Your task to perform on an android device: Show me productivity apps on the Play Store Image 0: 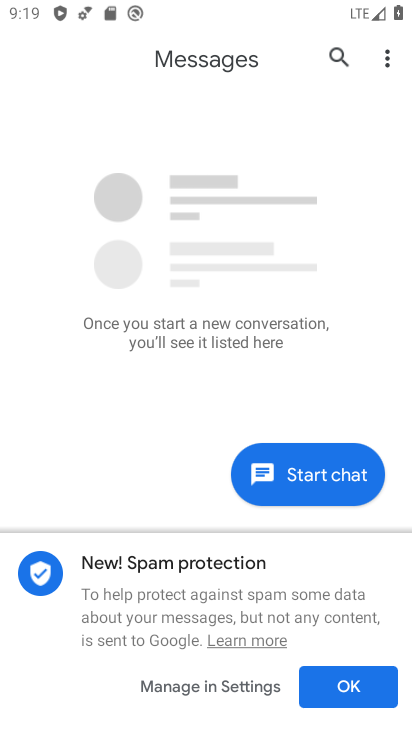
Step 0: press home button
Your task to perform on an android device: Show me productivity apps on the Play Store Image 1: 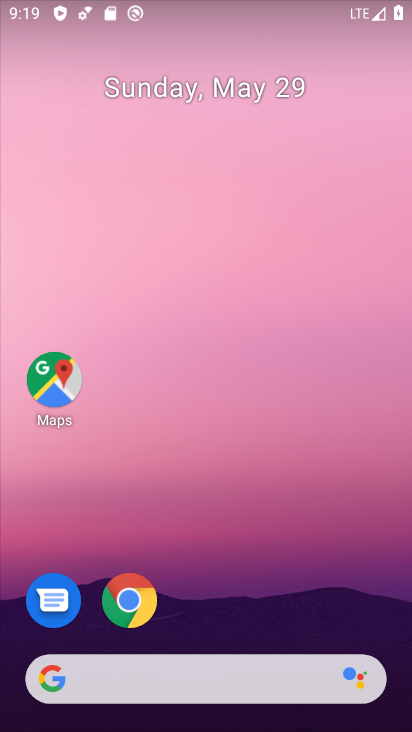
Step 1: drag from (259, 633) to (311, 37)
Your task to perform on an android device: Show me productivity apps on the Play Store Image 2: 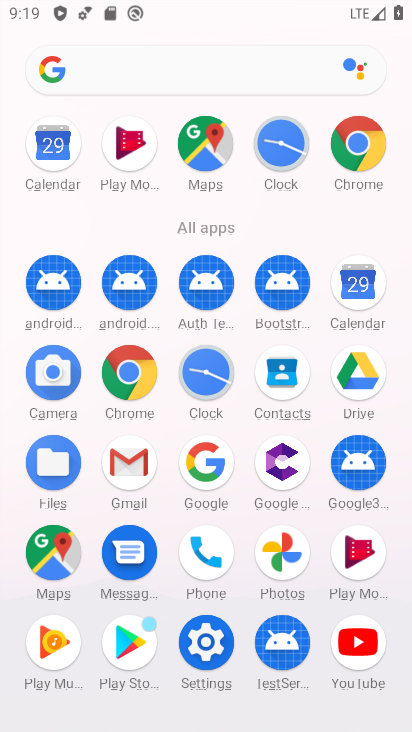
Step 2: click (137, 629)
Your task to perform on an android device: Show me productivity apps on the Play Store Image 3: 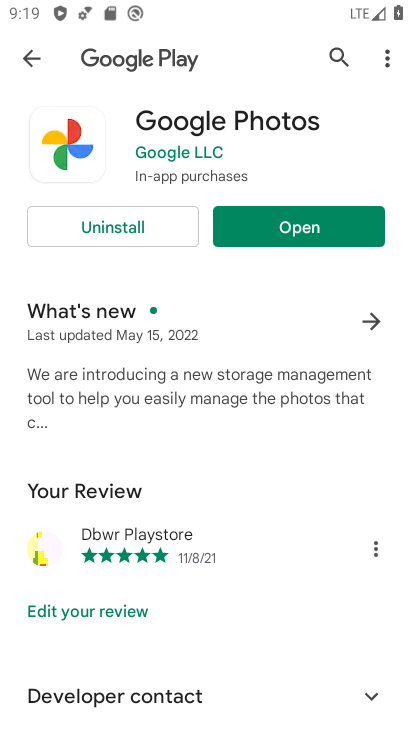
Step 3: click (36, 58)
Your task to perform on an android device: Show me productivity apps on the Play Store Image 4: 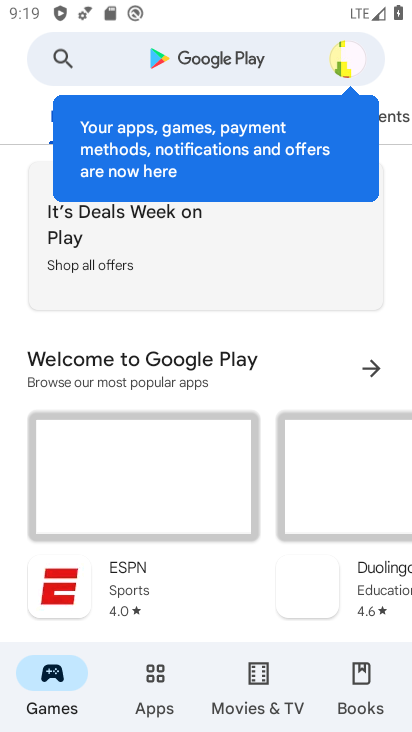
Step 4: click (143, 59)
Your task to perform on an android device: Show me productivity apps on the Play Store Image 5: 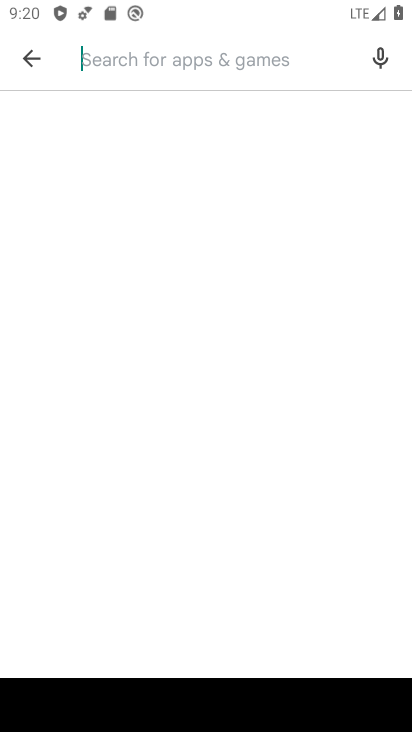
Step 5: type " productivity apps "
Your task to perform on an android device: Show me productivity apps on the Play Store Image 6: 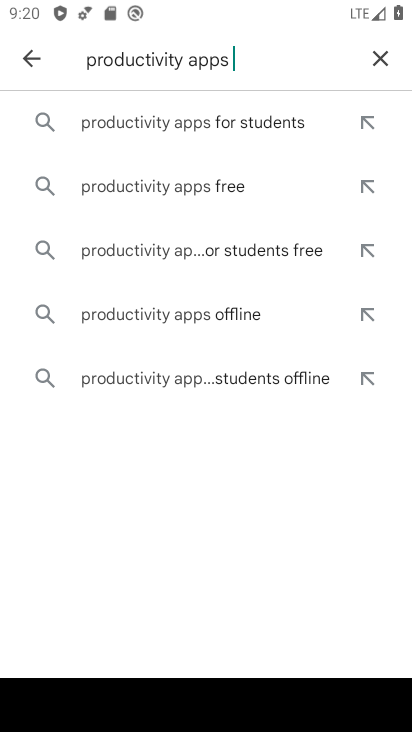
Step 6: click (122, 171)
Your task to perform on an android device: Show me productivity apps on the Play Store Image 7: 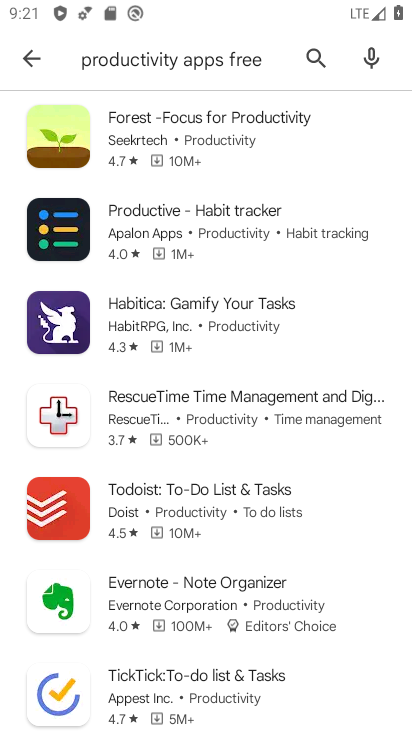
Step 7: task complete